Your task to perform on an android device: turn on wifi Image 0: 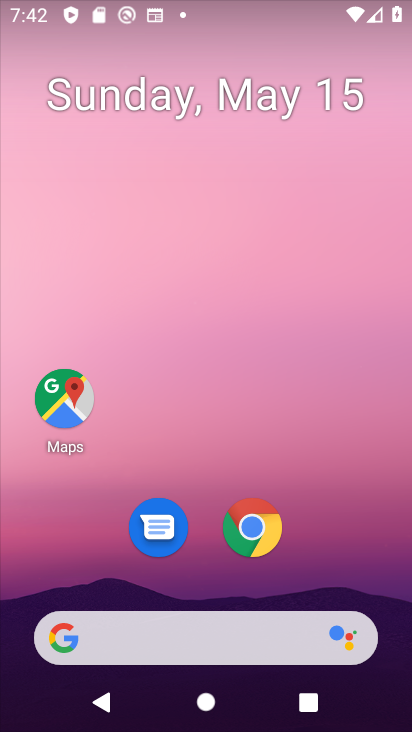
Step 0: drag from (207, 628) to (409, 52)
Your task to perform on an android device: turn on wifi Image 1: 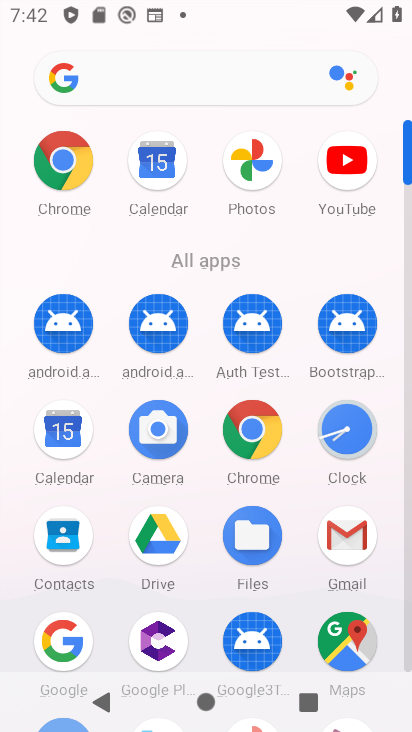
Step 1: drag from (170, 624) to (339, 185)
Your task to perform on an android device: turn on wifi Image 2: 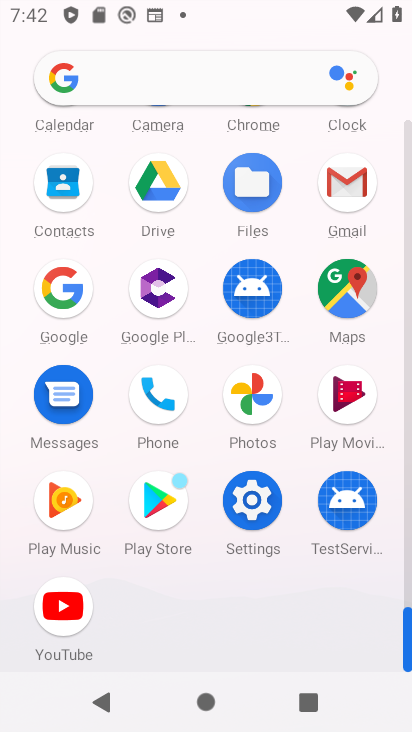
Step 2: click (262, 513)
Your task to perform on an android device: turn on wifi Image 3: 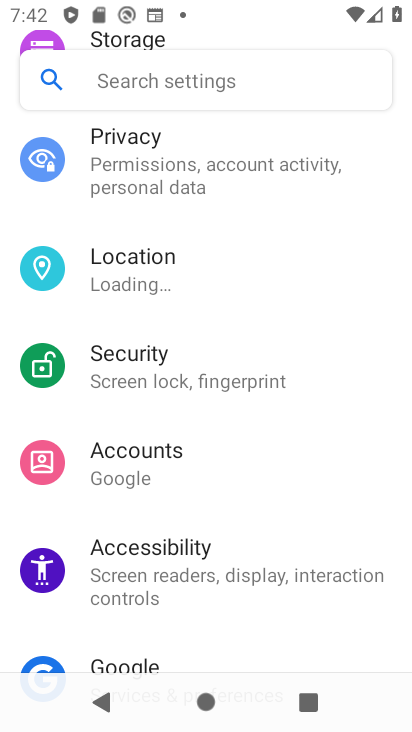
Step 3: drag from (271, 252) to (201, 595)
Your task to perform on an android device: turn on wifi Image 4: 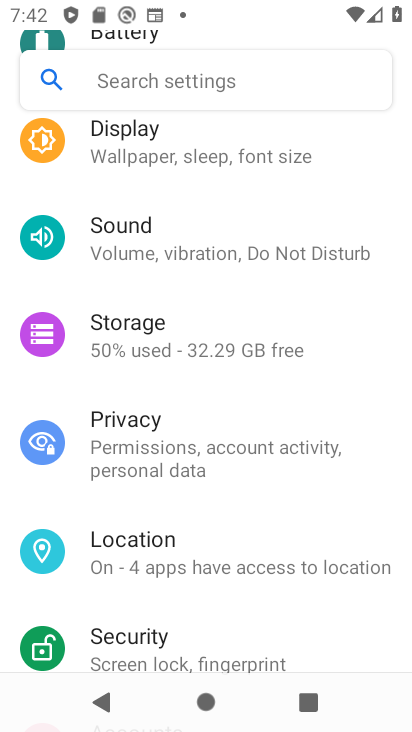
Step 4: drag from (238, 444) to (224, 557)
Your task to perform on an android device: turn on wifi Image 5: 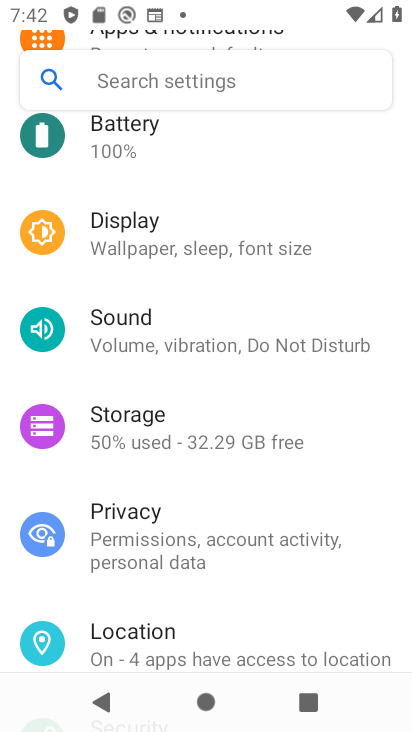
Step 5: drag from (284, 376) to (254, 567)
Your task to perform on an android device: turn on wifi Image 6: 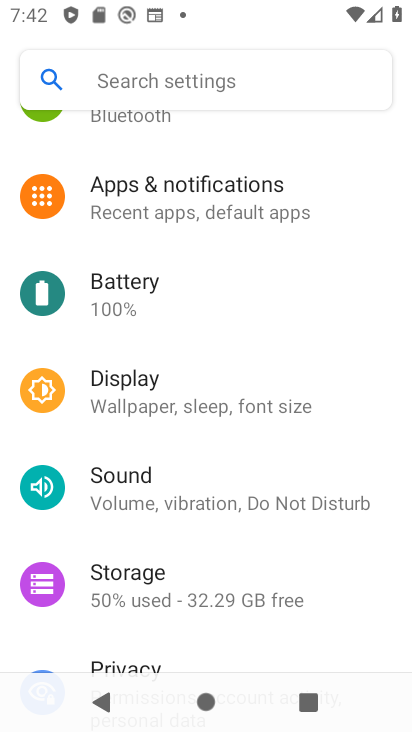
Step 6: drag from (303, 136) to (301, 527)
Your task to perform on an android device: turn on wifi Image 7: 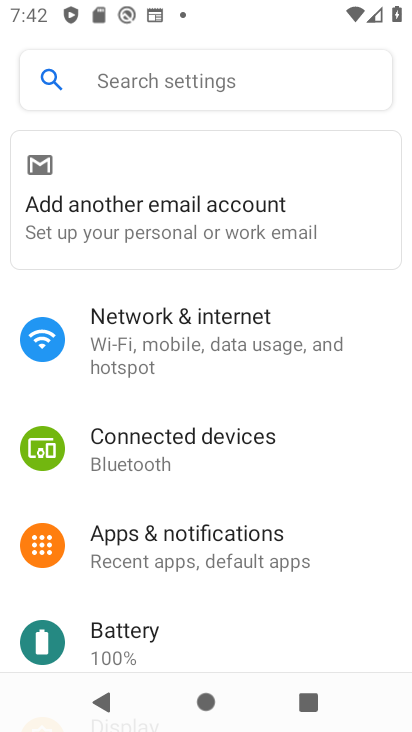
Step 7: click (227, 341)
Your task to perform on an android device: turn on wifi Image 8: 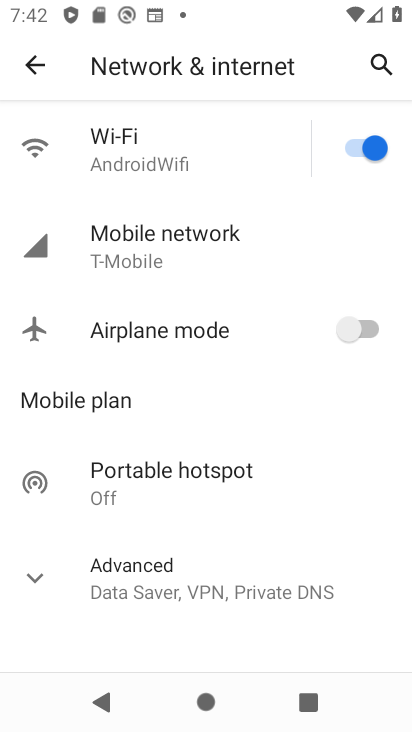
Step 8: task complete